Your task to perform on an android device: Go to CNN.com Image 0: 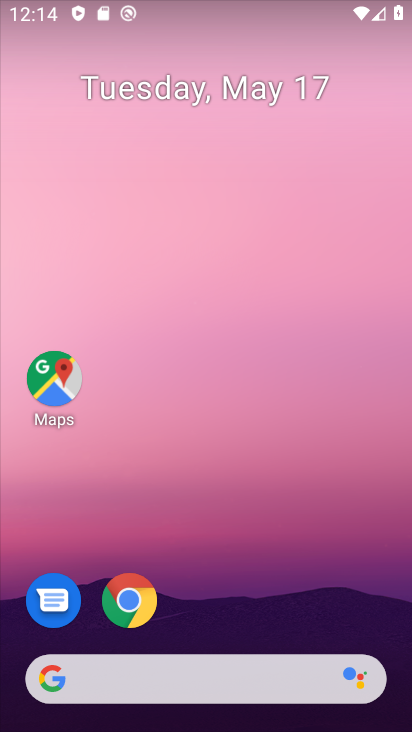
Step 0: drag from (224, 608) to (284, 149)
Your task to perform on an android device: Go to CNN.com Image 1: 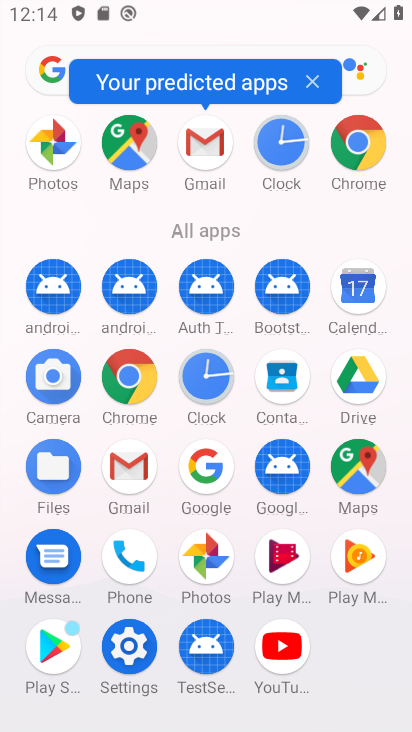
Step 1: click (130, 392)
Your task to perform on an android device: Go to CNN.com Image 2: 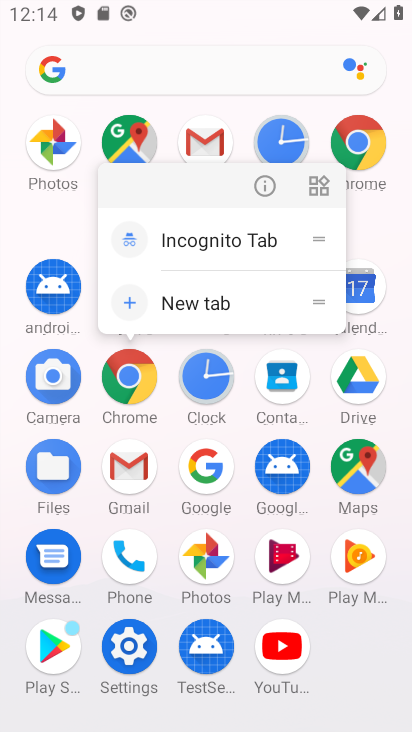
Step 2: click (346, 153)
Your task to perform on an android device: Go to CNN.com Image 3: 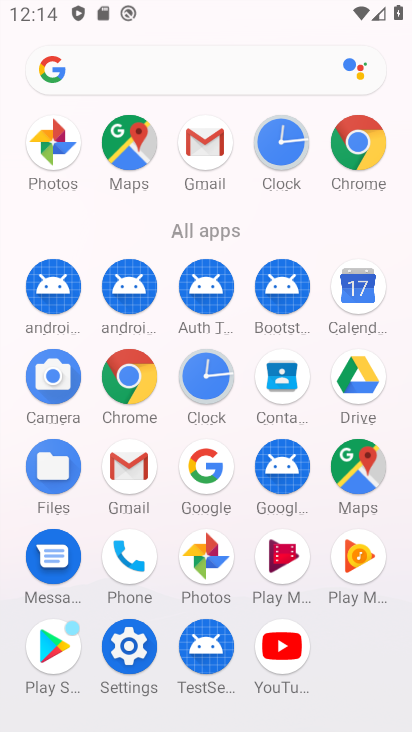
Step 3: click (365, 176)
Your task to perform on an android device: Go to CNN.com Image 4: 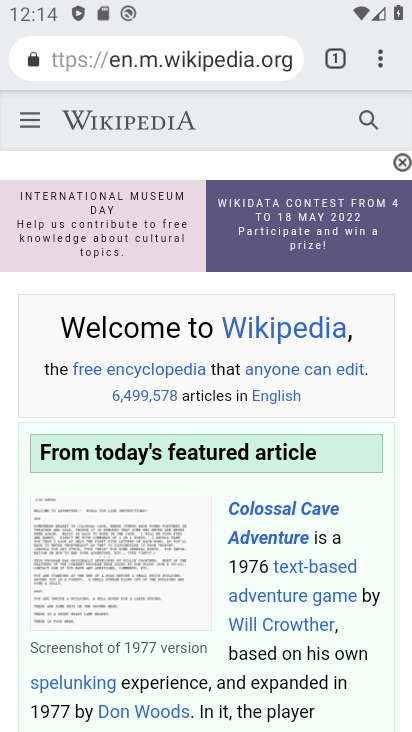
Step 4: click (176, 60)
Your task to perform on an android device: Go to CNN.com Image 5: 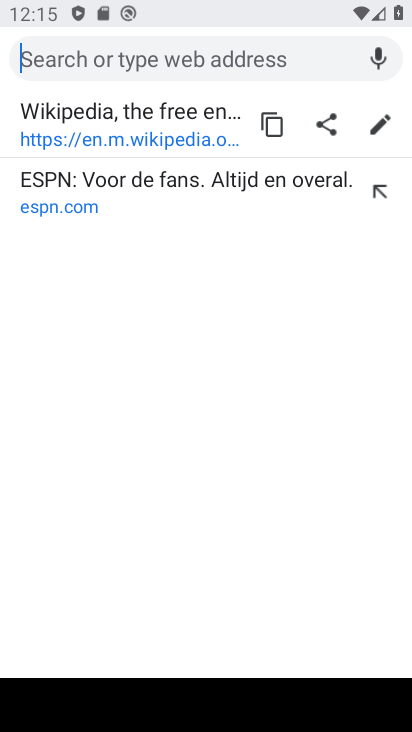
Step 5: type "www.cnn.com"
Your task to perform on an android device: Go to CNN.com Image 6: 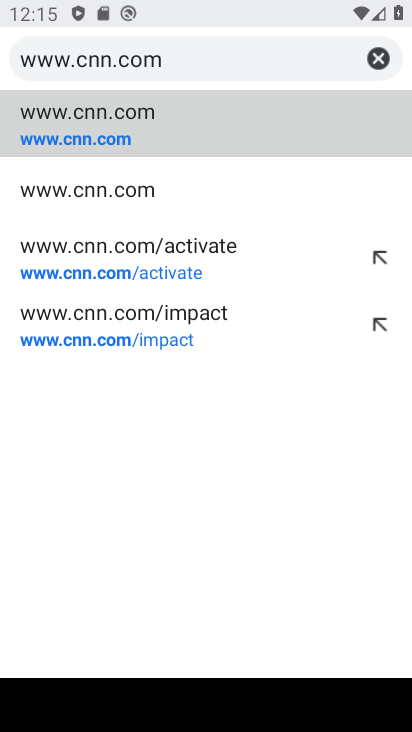
Step 6: click (73, 126)
Your task to perform on an android device: Go to CNN.com Image 7: 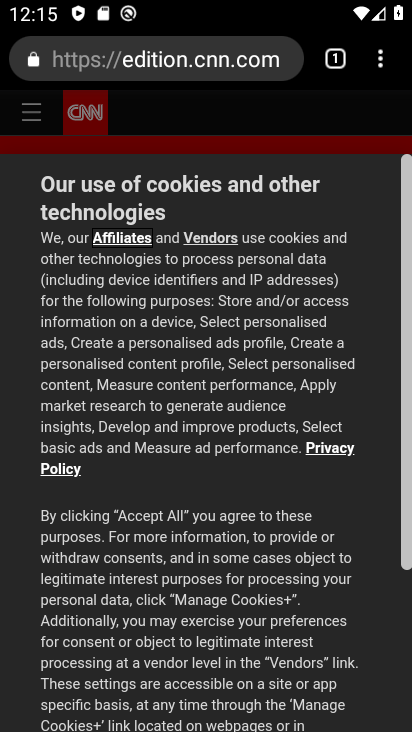
Step 7: task complete